Your task to perform on an android device: Open privacy settings Image 0: 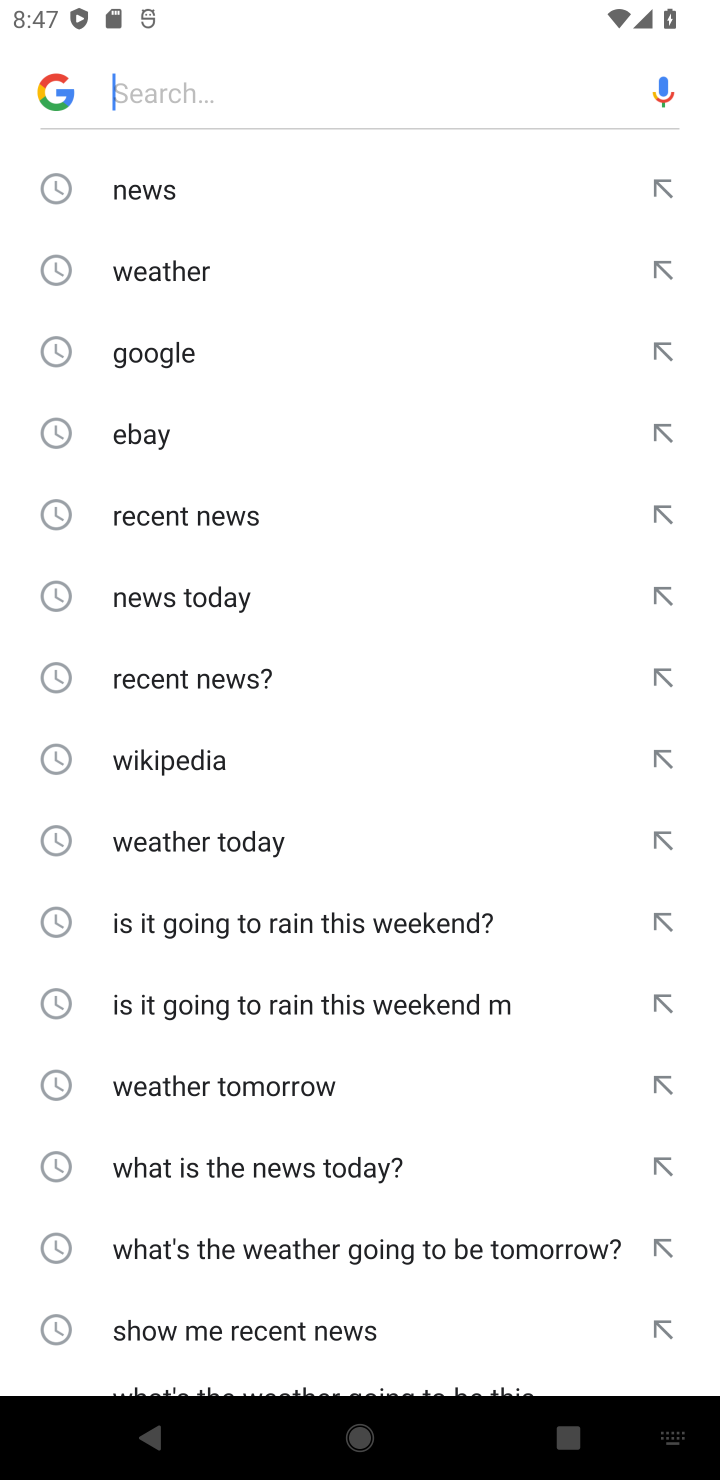
Step 0: task complete